Your task to perform on an android device: turn pop-ups off in chrome Image 0: 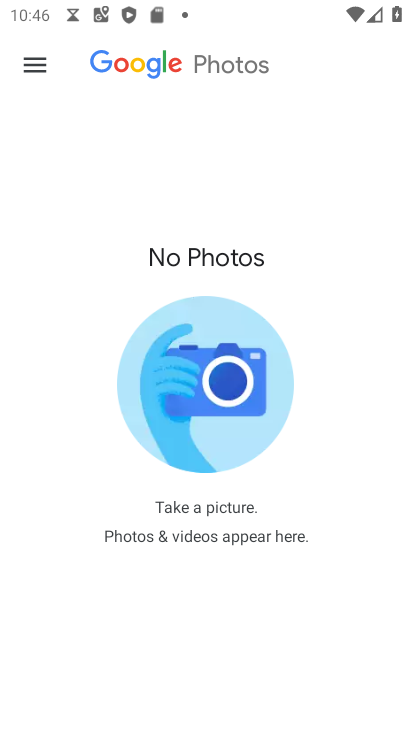
Step 0: press back button
Your task to perform on an android device: turn pop-ups off in chrome Image 1: 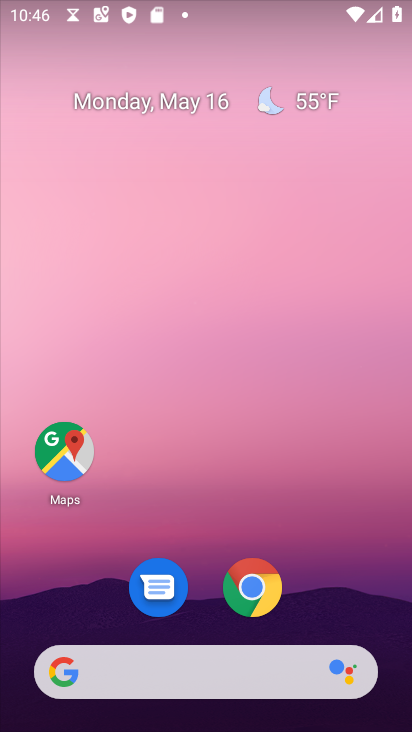
Step 1: drag from (317, 588) to (242, 3)
Your task to perform on an android device: turn pop-ups off in chrome Image 2: 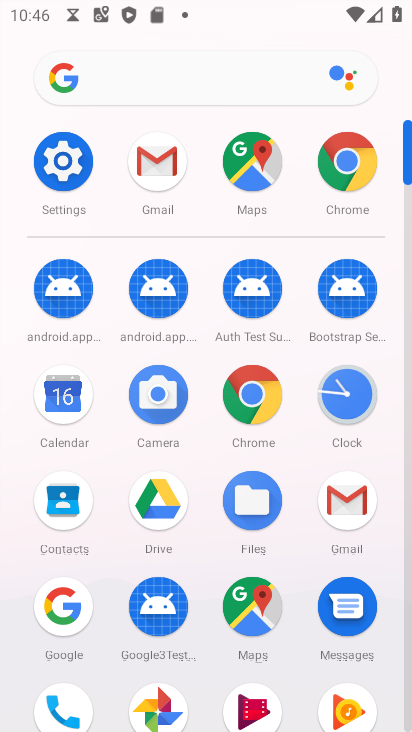
Step 2: drag from (13, 581) to (9, 246)
Your task to perform on an android device: turn pop-ups off in chrome Image 3: 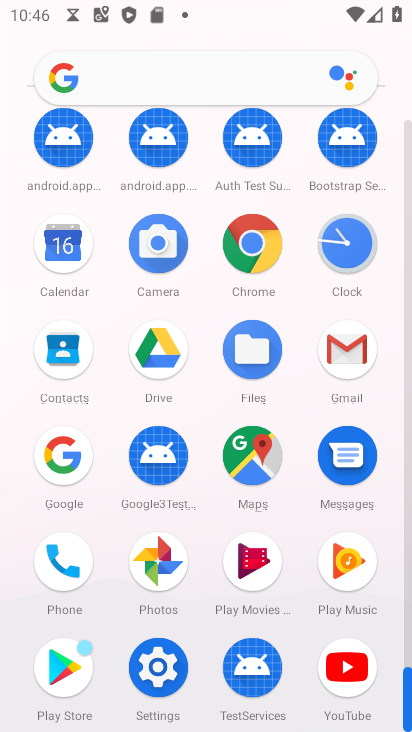
Step 3: click (255, 238)
Your task to perform on an android device: turn pop-ups off in chrome Image 4: 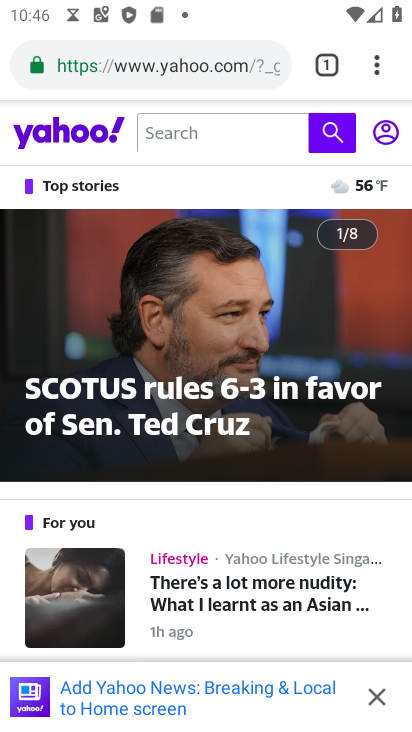
Step 4: click (176, 74)
Your task to perform on an android device: turn pop-ups off in chrome Image 5: 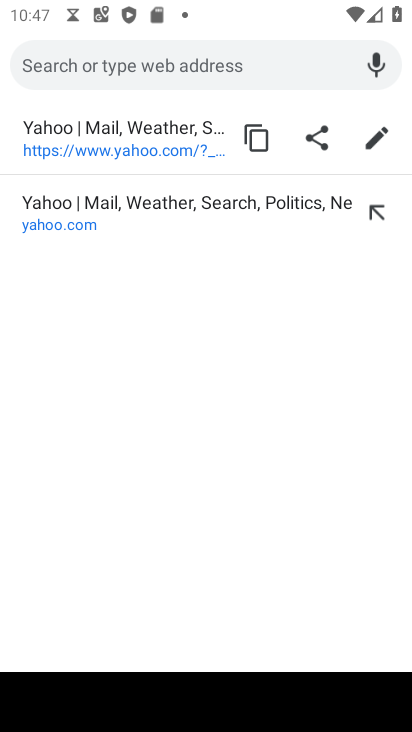
Step 5: press back button
Your task to perform on an android device: turn pop-ups off in chrome Image 6: 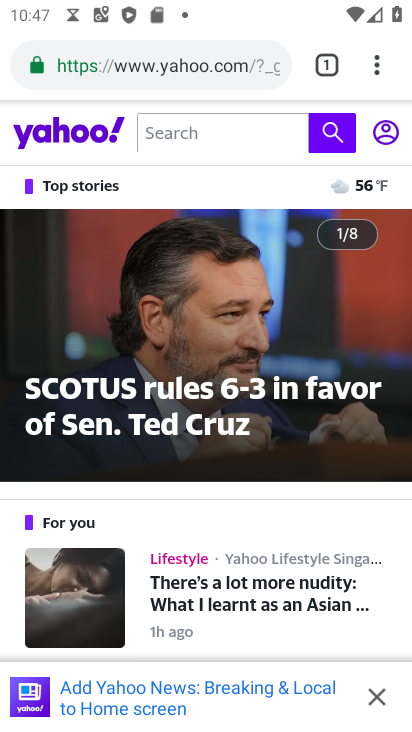
Step 6: drag from (378, 64) to (155, 623)
Your task to perform on an android device: turn pop-ups off in chrome Image 7: 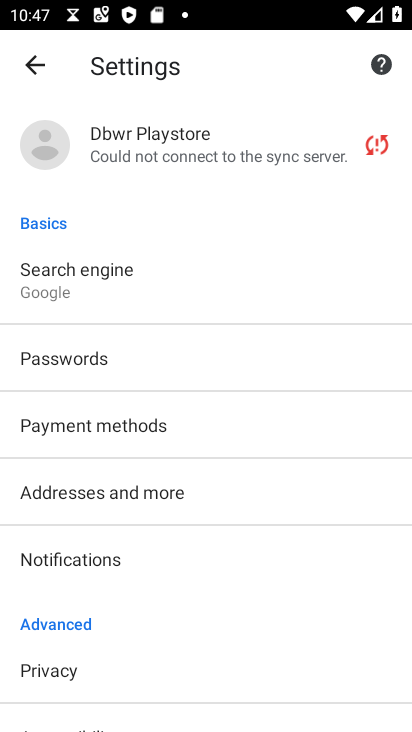
Step 7: drag from (223, 603) to (228, 291)
Your task to perform on an android device: turn pop-ups off in chrome Image 8: 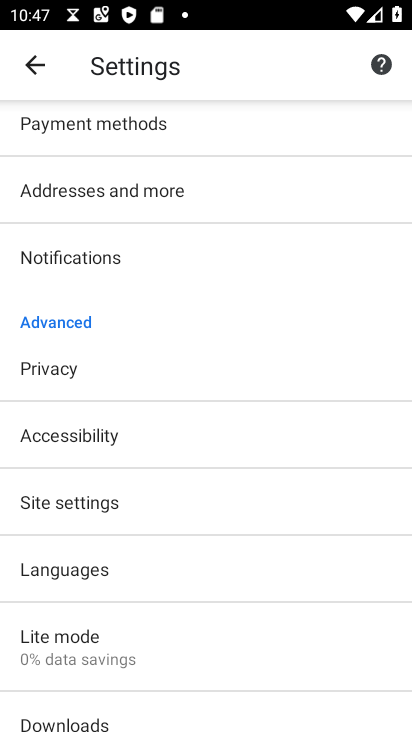
Step 8: click (142, 499)
Your task to perform on an android device: turn pop-ups off in chrome Image 9: 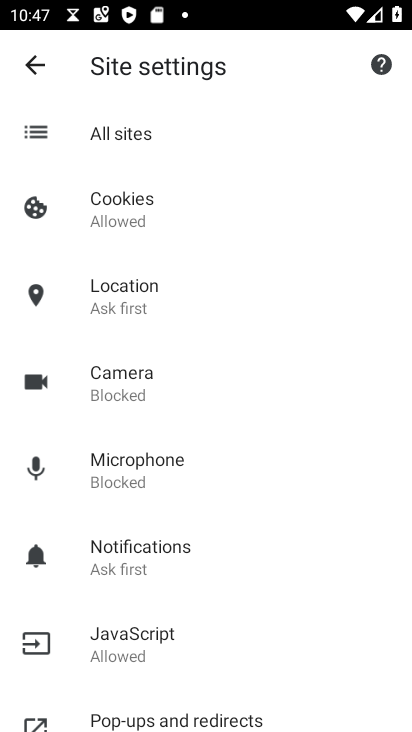
Step 9: drag from (283, 577) to (302, 259)
Your task to perform on an android device: turn pop-ups off in chrome Image 10: 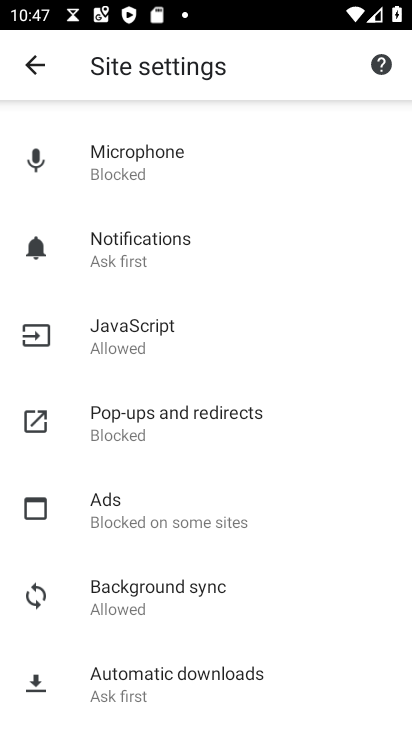
Step 10: click (142, 417)
Your task to perform on an android device: turn pop-ups off in chrome Image 11: 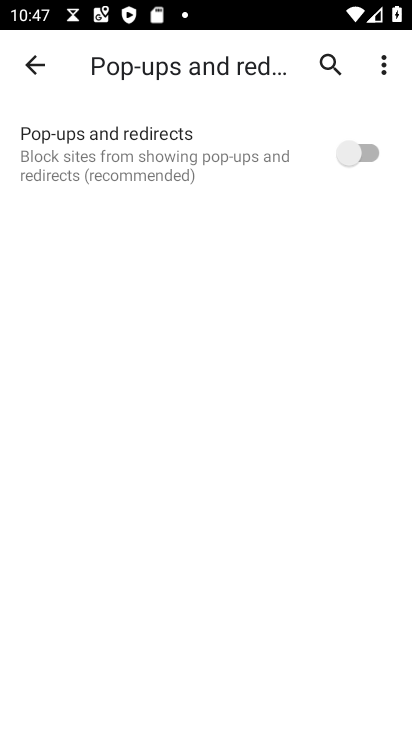
Step 11: task complete